Your task to perform on an android device: turn off smart reply in the gmail app Image 0: 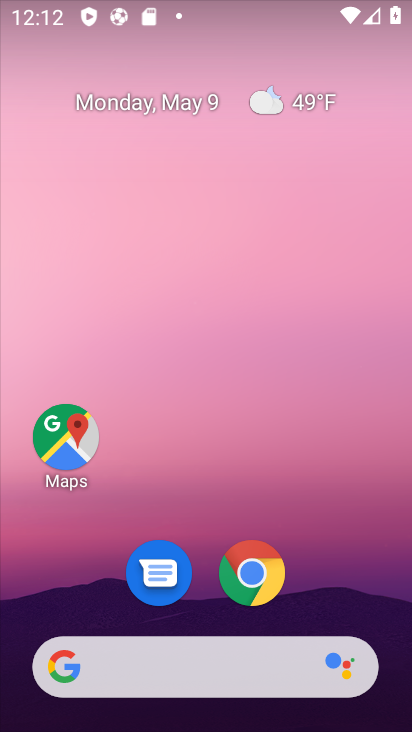
Step 0: drag from (225, 725) to (165, 77)
Your task to perform on an android device: turn off smart reply in the gmail app Image 1: 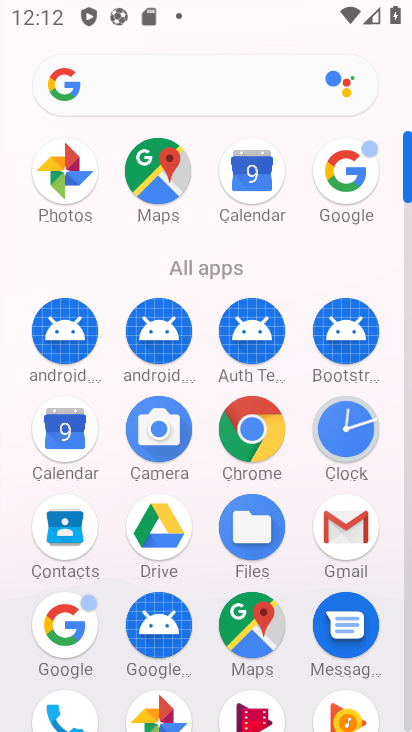
Step 1: click (347, 516)
Your task to perform on an android device: turn off smart reply in the gmail app Image 2: 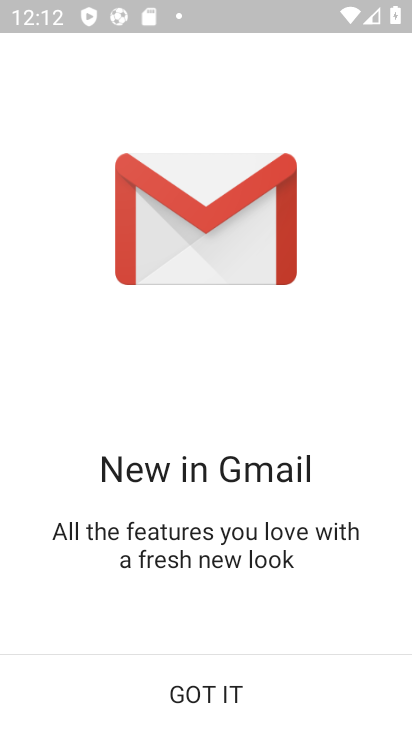
Step 2: click (193, 684)
Your task to perform on an android device: turn off smart reply in the gmail app Image 3: 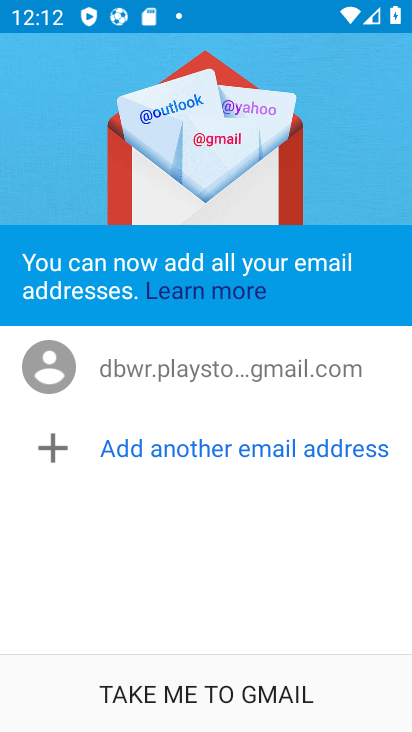
Step 3: click (193, 684)
Your task to perform on an android device: turn off smart reply in the gmail app Image 4: 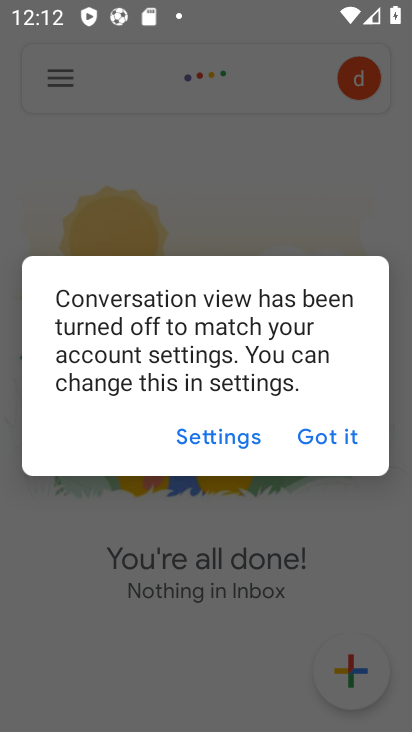
Step 4: click (339, 434)
Your task to perform on an android device: turn off smart reply in the gmail app Image 5: 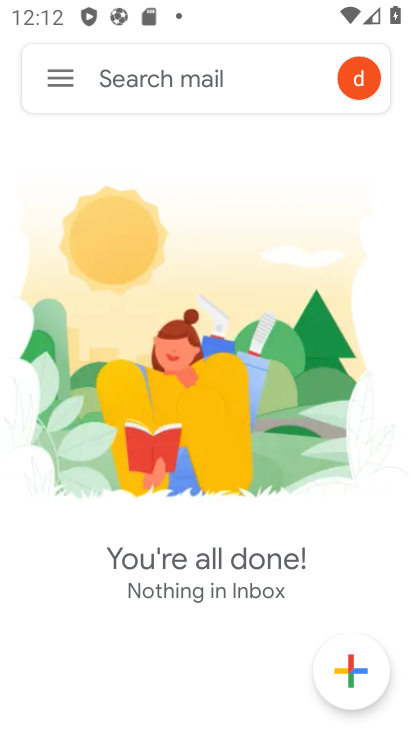
Step 5: click (44, 72)
Your task to perform on an android device: turn off smart reply in the gmail app Image 6: 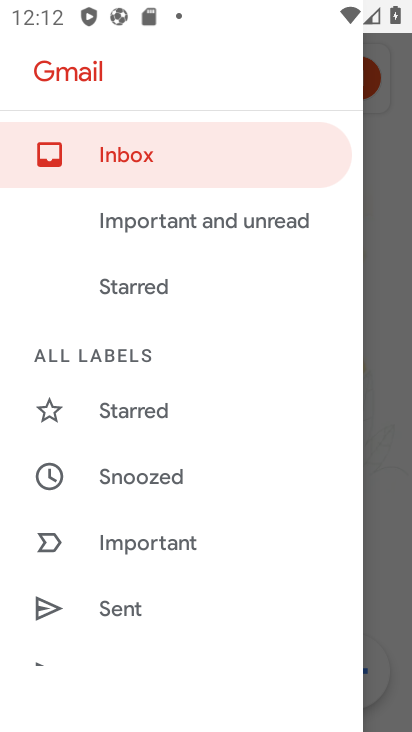
Step 6: drag from (215, 616) to (120, 6)
Your task to perform on an android device: turn off smart reply in the gmail app Image 7: 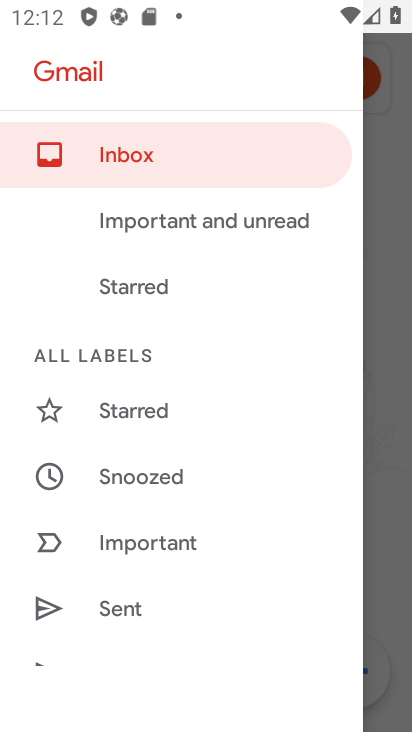
Step 7: drag from (209, 577) to (102, 0)
Your task to perform on an android device: turn off smart reply in the gmail app Image 8: 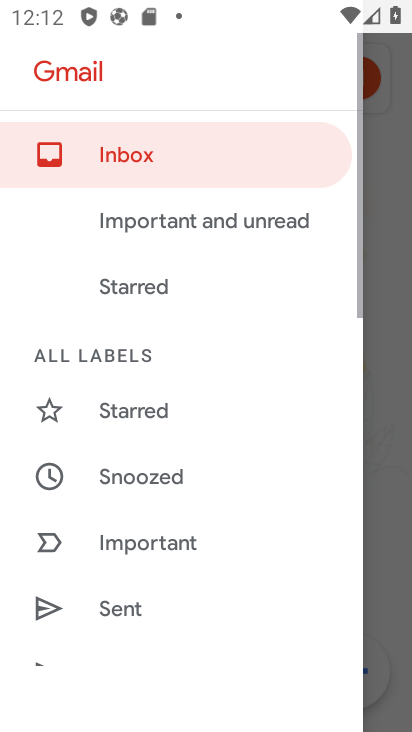
Step 8: drag from (104, 511) to (101, 42)
Your task to perform on an android device: turn off smart reply in the gmail app Image 9: 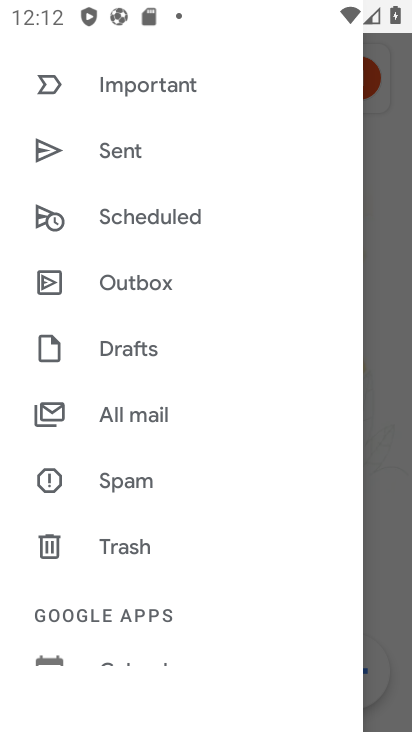
Step 9: drag from (116, 603) to (85, 53)
Your task to perform on an android device: turn off smart reply in the gmail app Image 10: 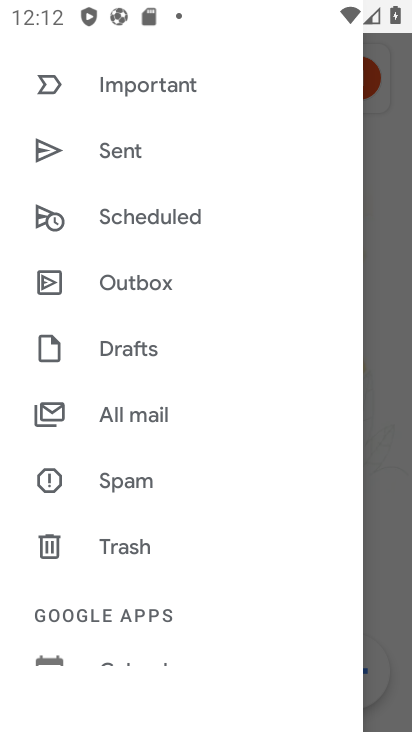
Step 10: drag from (126, 639) to (72, 39)
Your task to perform on an android device: turn off smart reply in the gmail app Image 11: 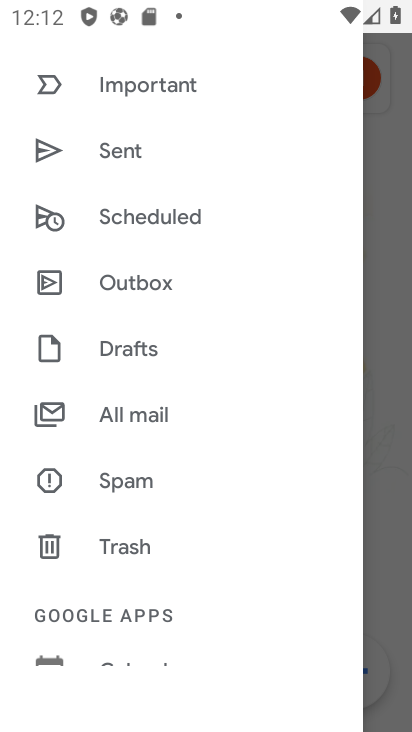
Step 11: drag from (71, 532) to (52, 1)
Your task to perform on an android device: turn off smart reply in the gmail app Image 12: 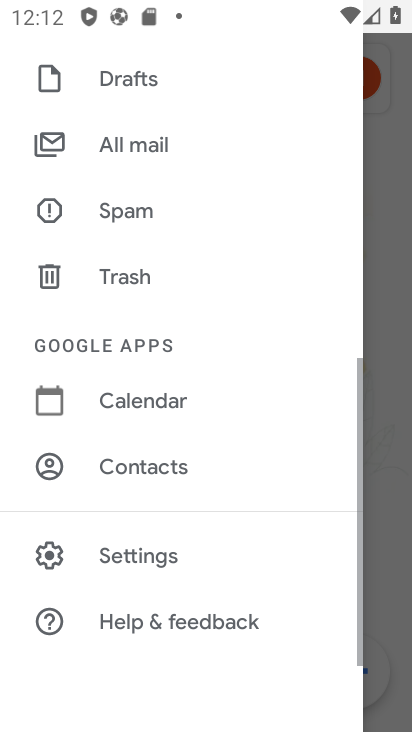
Step 12: drag from (158, 552) to (222, 42)
Your task to perform on an android device: turn off smart reply in the gmail app Image 13: 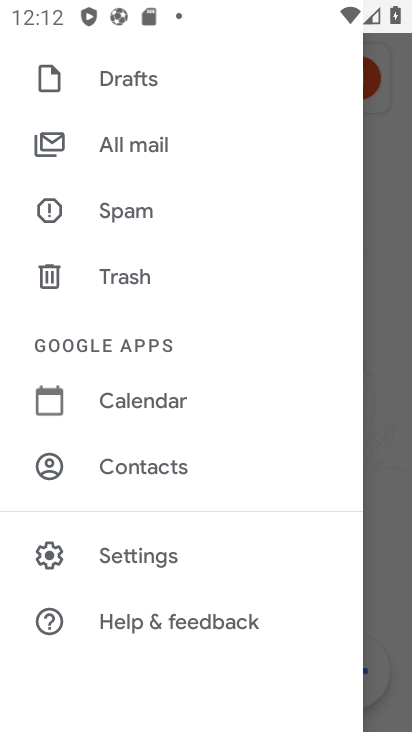
Step 13: click (149, 565)
Your task to perform on an android device: turn off smart reply in the gmail app Image 14: 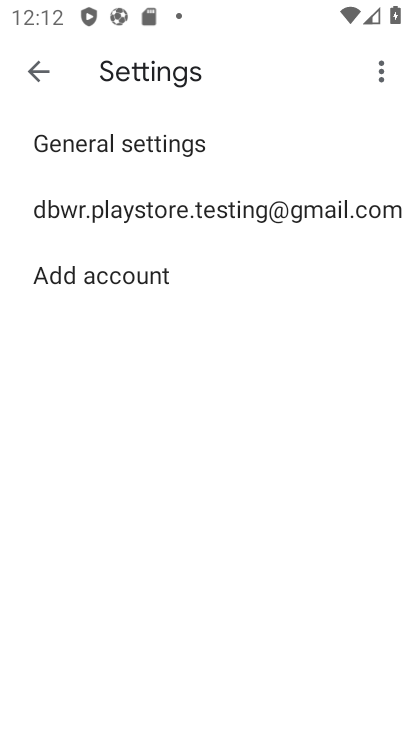
Step 14: click (271, 213)
Your task to perform on an android device: turn off smart reply in the gmail app Image 15: 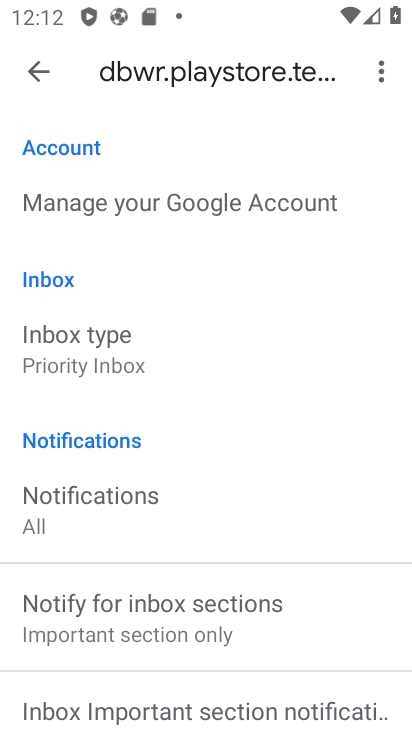
Step 15: drag from (207, 591) to (185, 106)
Your task to perform on an android device: turn off smart reply in the gmail app Image 16: 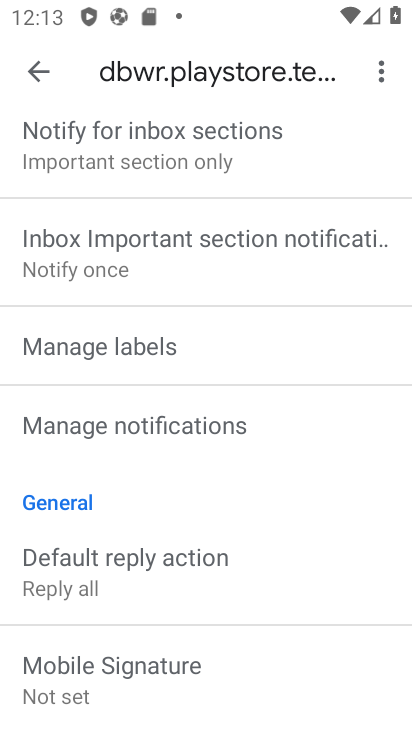
Step 16: drag from (290, 663) to (263, 154)
Your task to perform on an android device: turn off smart reply in the gmail app Image 17: 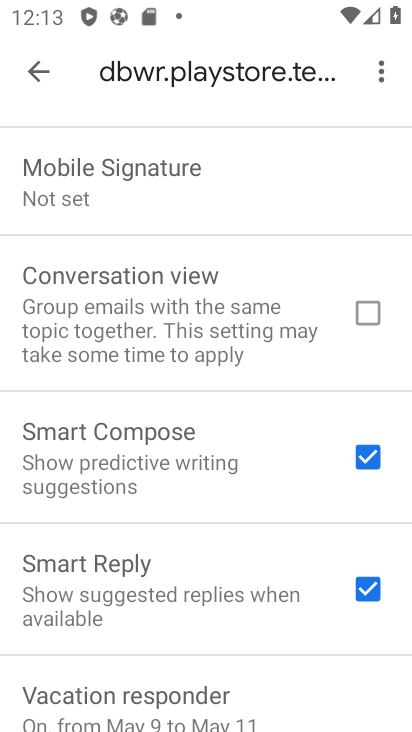
Step 17: click (370, 590)
Your task to perform on an android device: turn off smart reply in the gmail app Image 18: 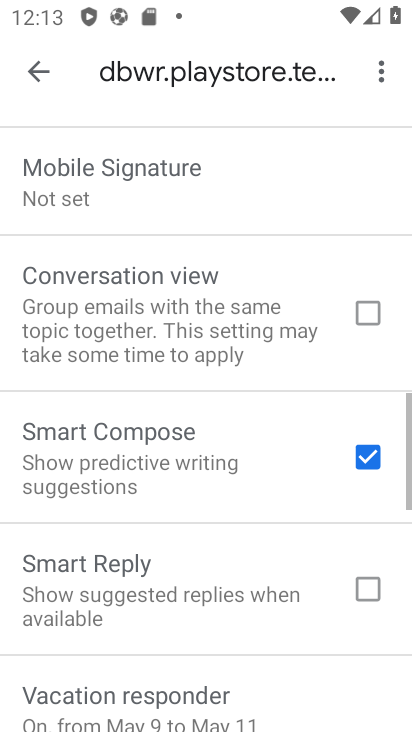
Step 18: task complete